Your task to perform on an android device: change text size in settings app Image 0: 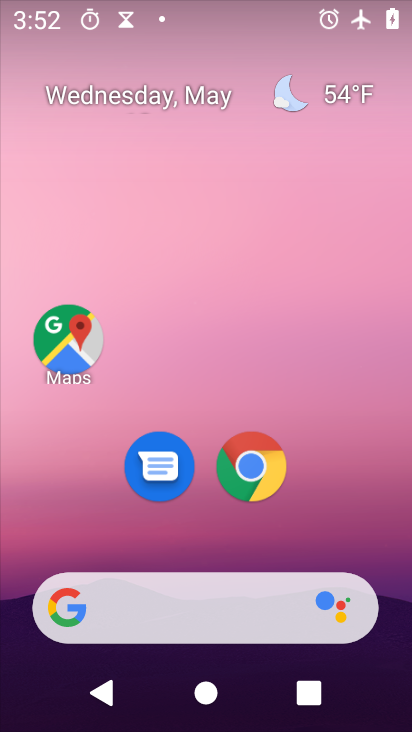
Step 0: drag from (77, 539) to (211, 519)
Your task to perform on an android device: change text size in settings app Image 1: 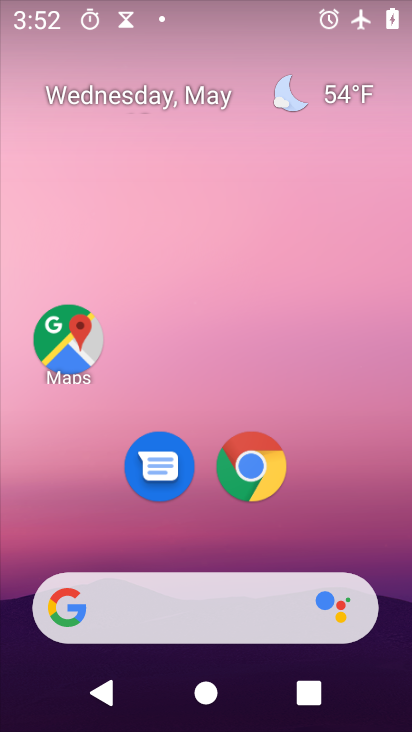
Step 1: drag from (237, 522) to (303, 538)
Your task to perform on an android device: change text size in settings app Image 2: 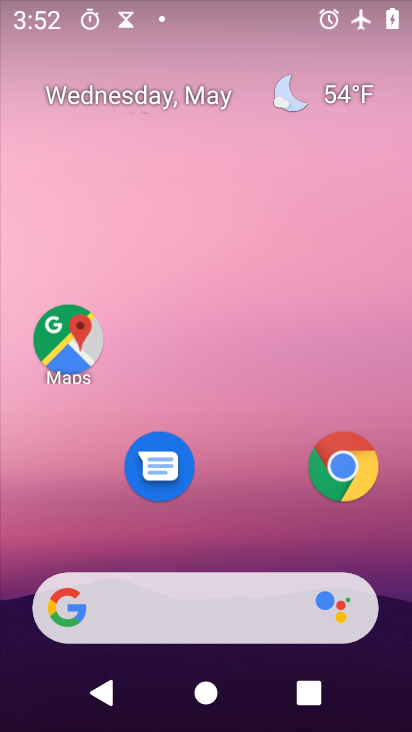
Step 2: drag from (270, 530) to (236, 63)
Your task to perform on an android device: change text size in settings app Image 3: 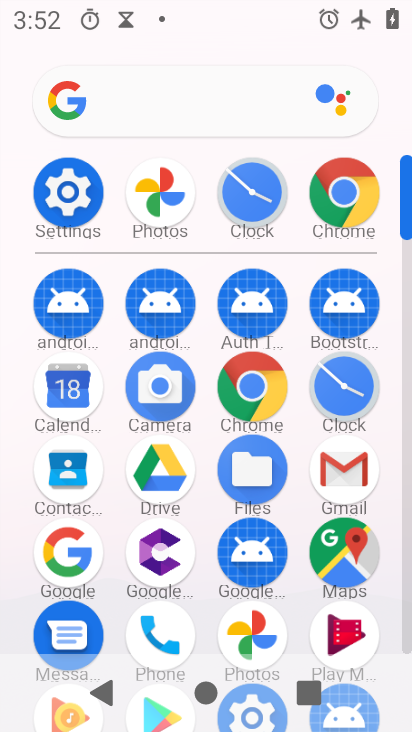
Step 3: click (66, 185)
Your task to perform on an android device: change text size in settings app Image 4: 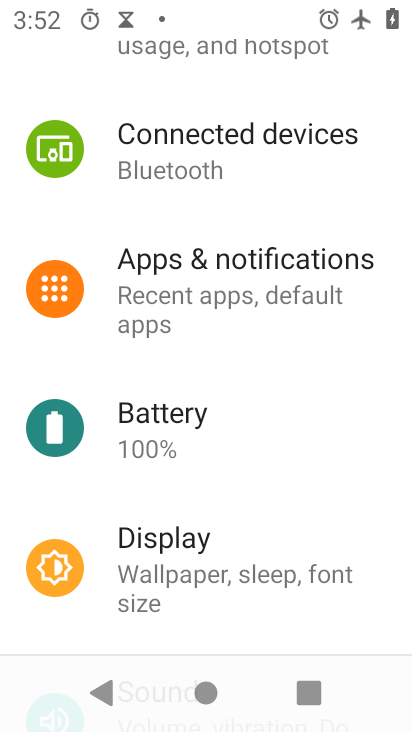
Step 4: click (187, 567)
Your task to perform on an android device: change text size in settings app Image 5: 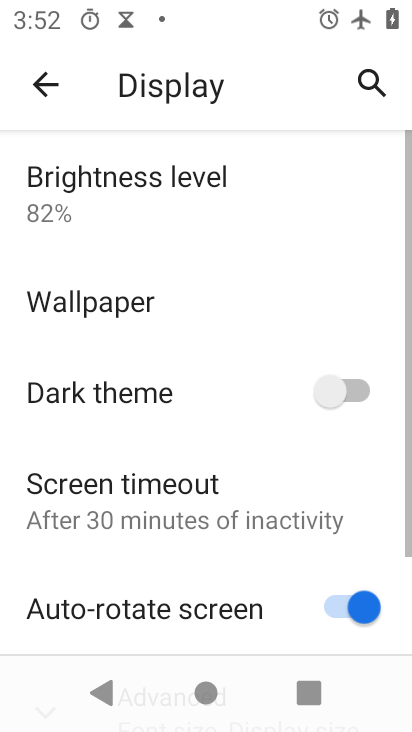
Step 5: drag from (187, 567) to (192, 107)
Your task to perform on an android device: change text size in settings app Image 6: 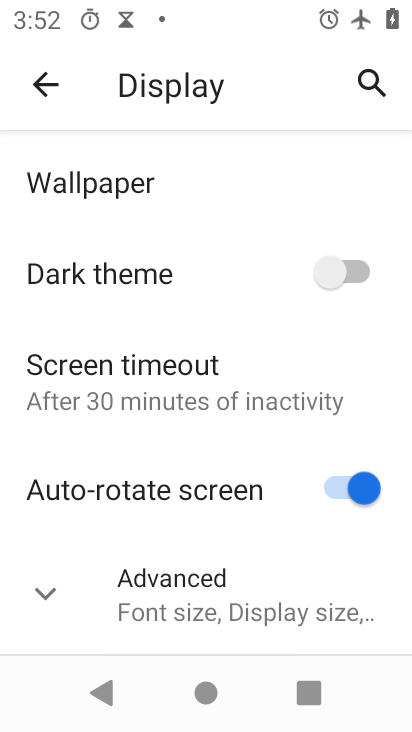
Step 6: click (253, 591)
Your task to perform on an android device: change text size in settings app Image 7: 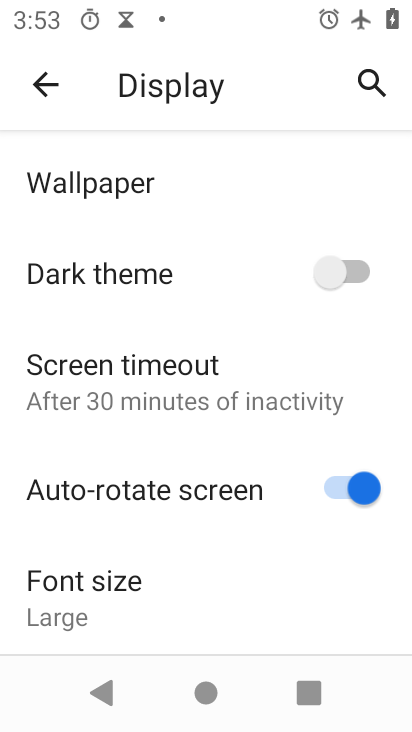
Step 7: click (253, 591)
Your task to perform on an android device: change text size in settings app Image 8: 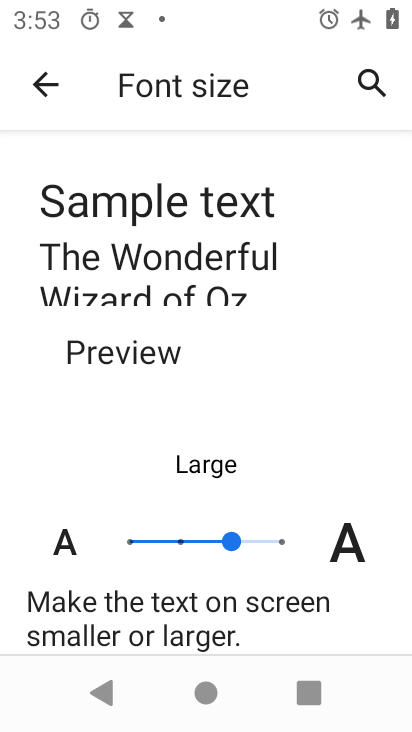
Step 8: click (196, 543)
Your task to perform on an android device: change text size in settings app Image 9: 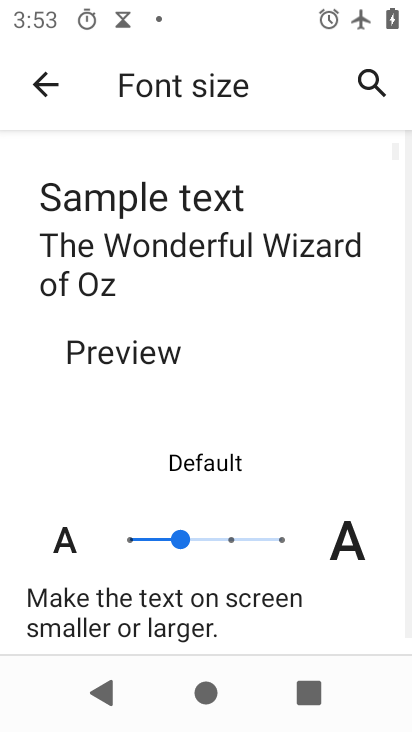
Step 9: task complete